Your task to perform on an android device: Go to display settings Image 0: 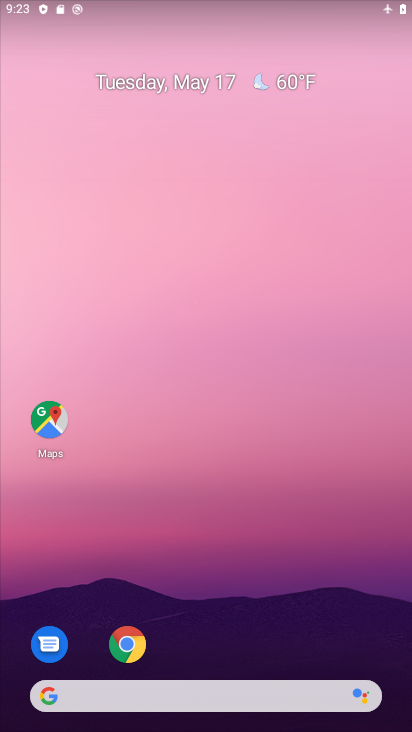
Step 0: drag from (248, 624) to (306, 139)
Your task to perform on an android device: Go to display settings Image 1: 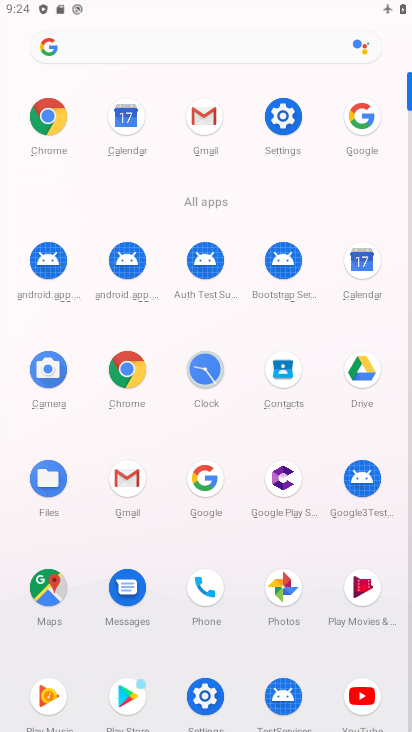
Step 1: click (278, 108)
Your task to perform on an android device: Go to display settings Image 2: 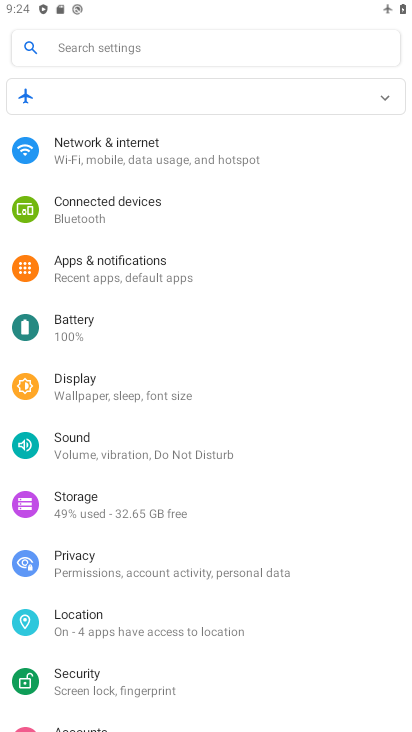
Step 2: click (121, 393)
Your task to perform on an android device: Go to display settings Image 3: 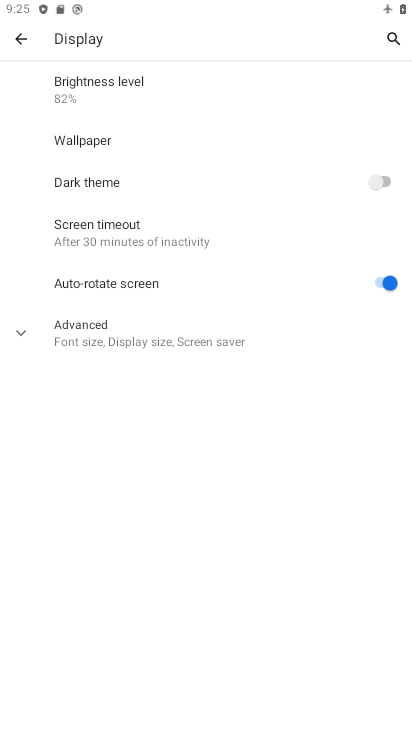
Step 3: task complete